Your task to perform on an android device: turn on javascript in the chrome app Image 0: 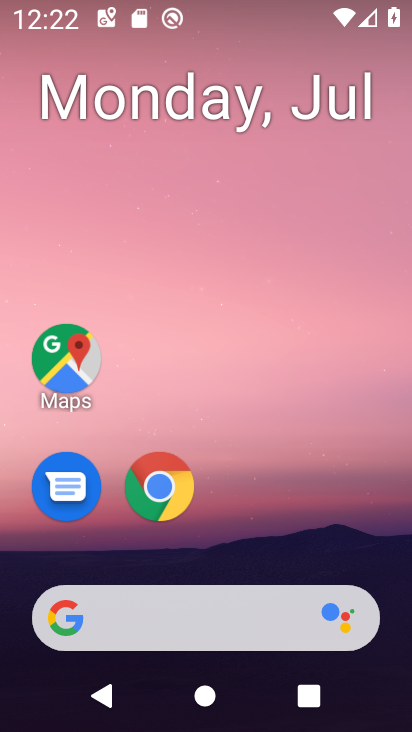
Step 0: press home button
Your task to perform on an android device: turn on javascript in the chrome app Image 1: 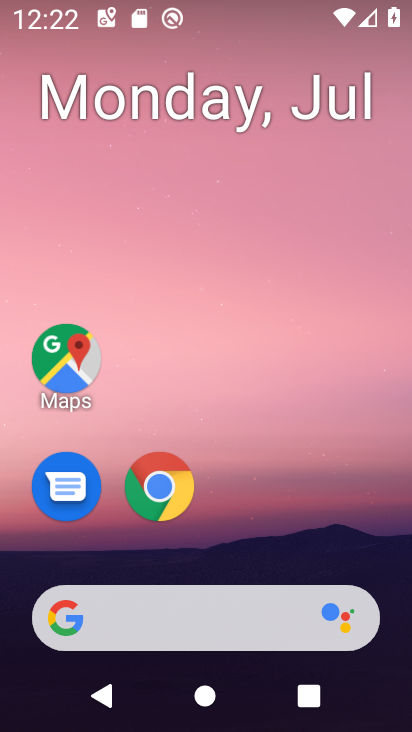
Step 1: drag from (300, 539) to (311, 127)
Your task to perform on an android device: turn on javascript in the chrome app Image 2: 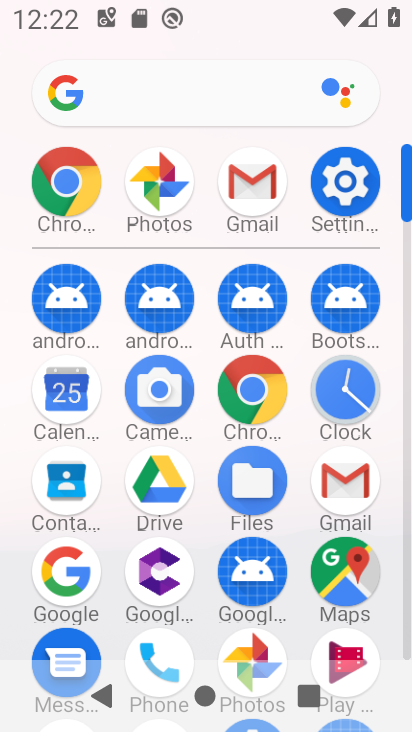
Step 2: click (246, 393)
Your task to perform on an android device: turn on javascript in the chrome app Image 3: 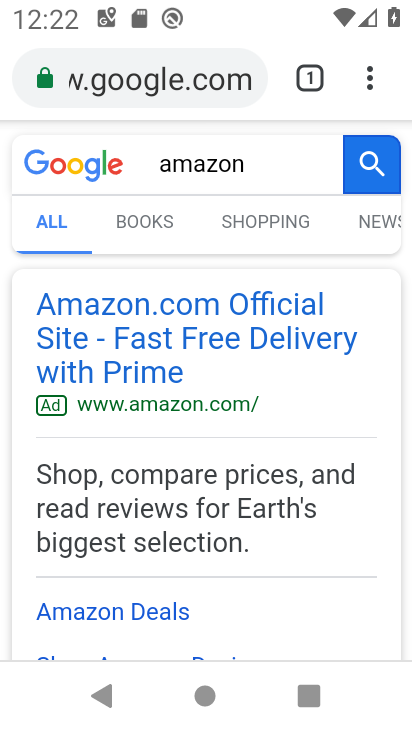
Step 3: click (370, 83)
Your task to perform on an android device: turn on javascript in the chrome app Image 4: 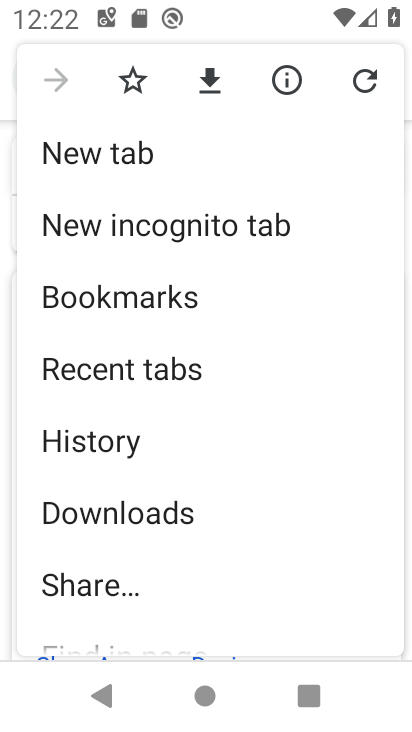
Step 4: drag from (300, 397) to (310, 313)
Your task to perform on an android device: turn on javascript in the chrome app Image 5: 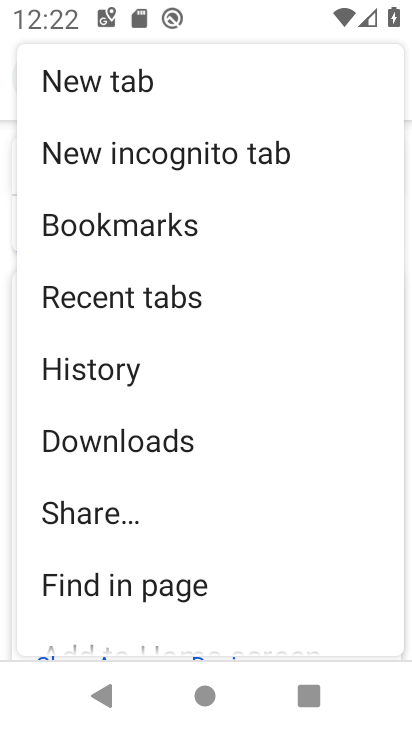
Step 5: drag from (315, 498) to (325, 386)
Your task to perform on an android device: turn on javascript in the chrome app Image 6: 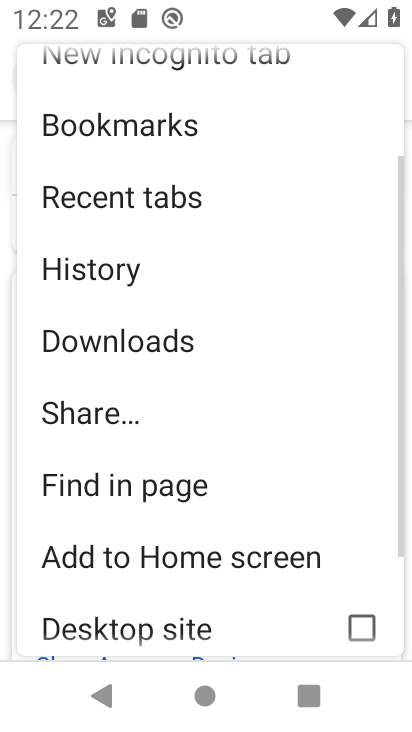
Step 6: drag from (331, 525) to (333, 404)
Your task to perform on an android device: turn on javascript in the chrome app Image 7: 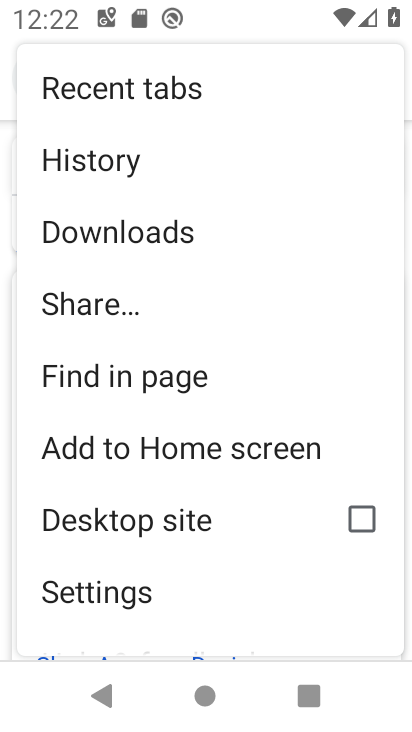
Step 7: drag from (305, 551) to (299, 398)
Your task to perform on an android device: turn on javascript in the chrome app Image 8: 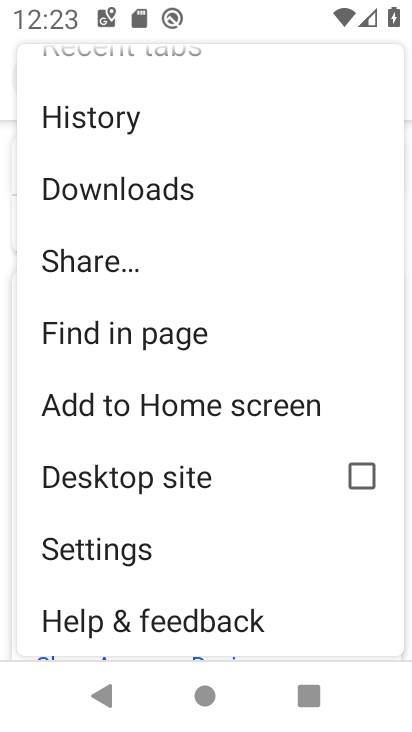
Step 8: click (139, 545)
Your task to perform on an android device: turn on javascript in the chrome app Image 9: 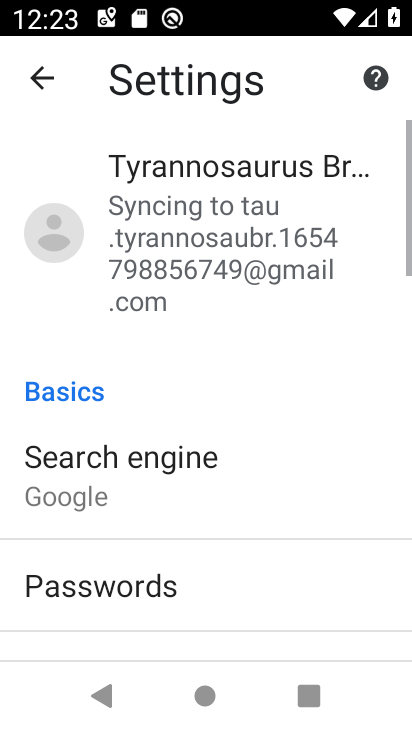
Step 9: drag from (285, 531) to (280, 357)
Your task to perform on an android device: turn on javascript in the chrome app Image 10: 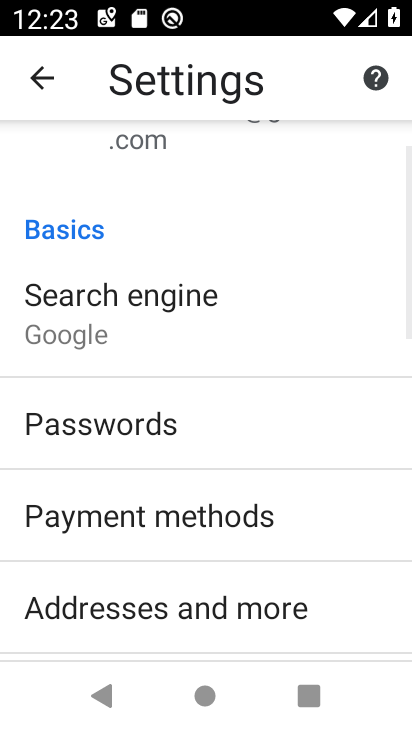
Step 10: drag from (313, 554) to (324, 411)
Your task to perform on an android device: turn on javascript in the chrome app Image 11: 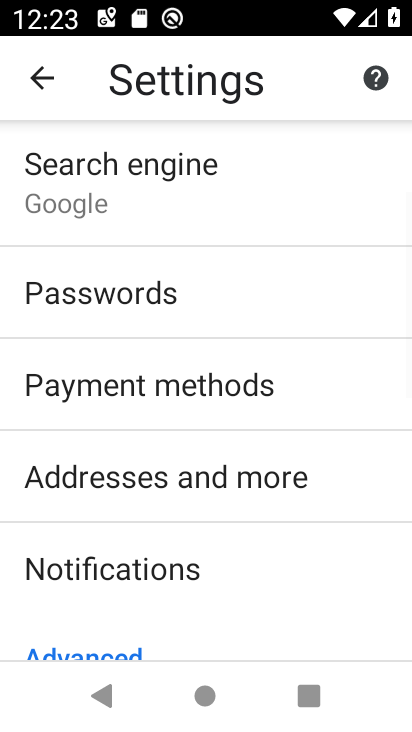
Step 11: drag from (319, 568) to (326, 416)
Your task to perform on an android device: turn on javascript in the chrome app Image 12: 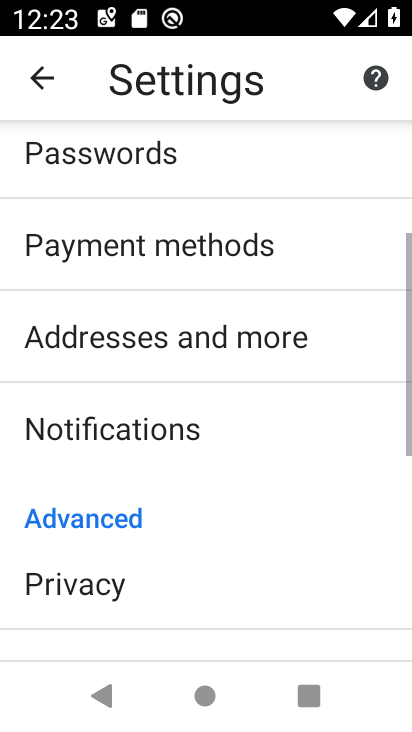
Step 12: drag from (328, 524) to (325, 408)
Your task to perform on an android device: turn on javascript in the chrome app Image 13: 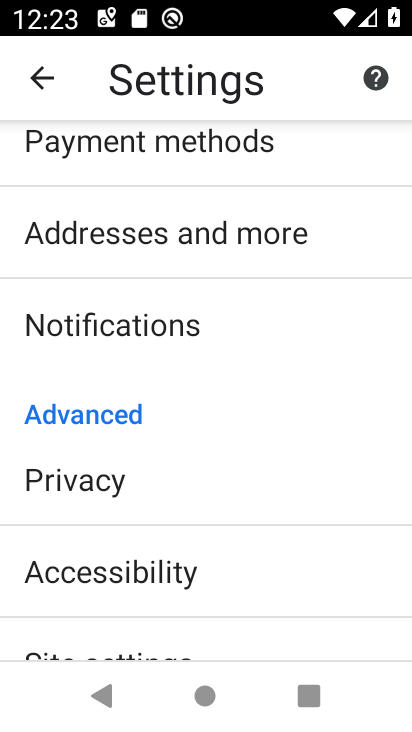
Step 13: drag from (300, 579) to (296, 425)
Your task to perform on an android device: turn on javascript in the chrome app Image 14: 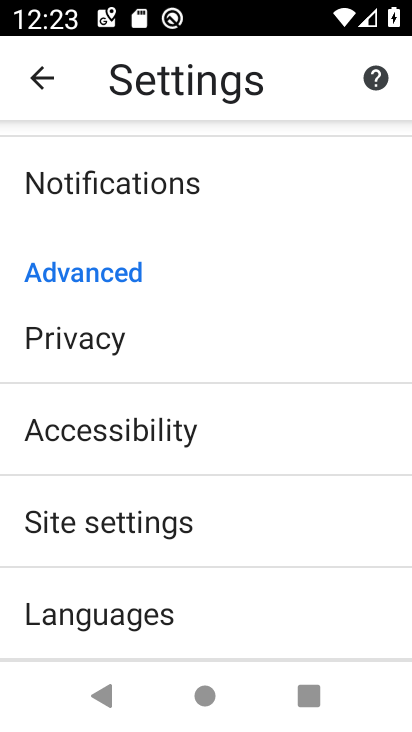
Step 14: drag from (265, 588) to (259, 450)
Your task to perform on an android device: turn on javascript in the chrome app Image 15: 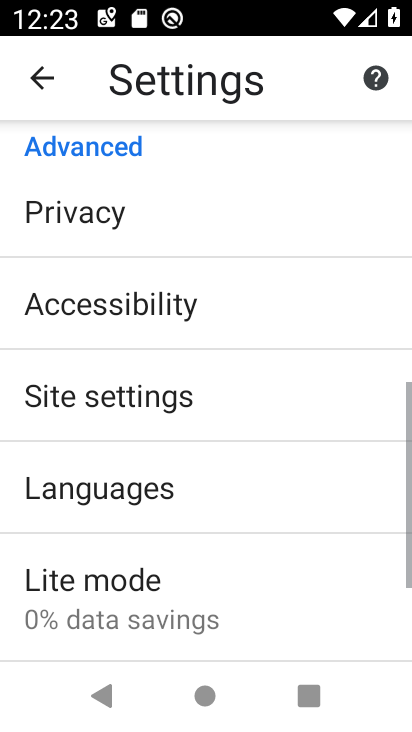
Step 15: drag from (260, 624) to (269, 430)
Your task to perform on an android device: turn on javascript in the chrome app Image 16: 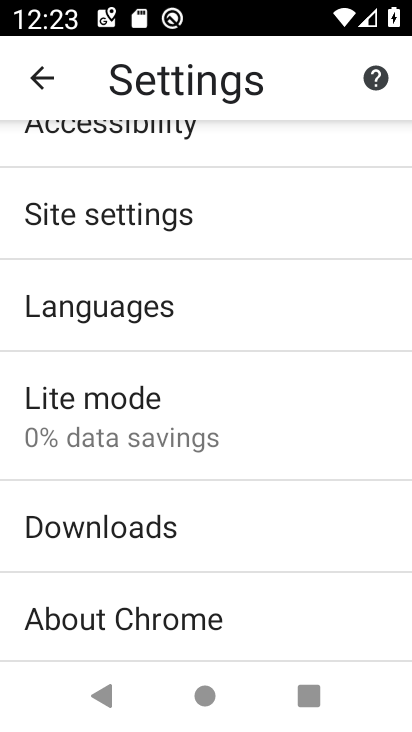
Step 16: click (265, 214)
Your task to perform on an android device: turn on javascript in the chrome app Image 17: 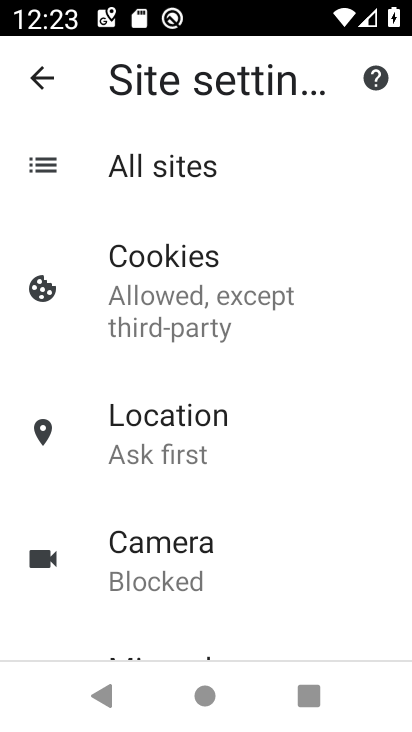
Step 17: drag from (327, 489) to (336, 348)
Your task to perform on an android device: turn on javascript in the chrome app Image 18: 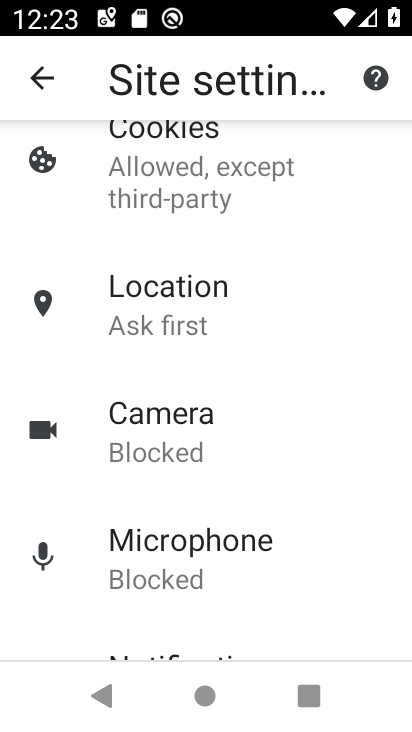
Step 18: drag from (330, 520) to (330, 341)
Your task to perform on an android device: turn on javascript in the chrome app Image 19: 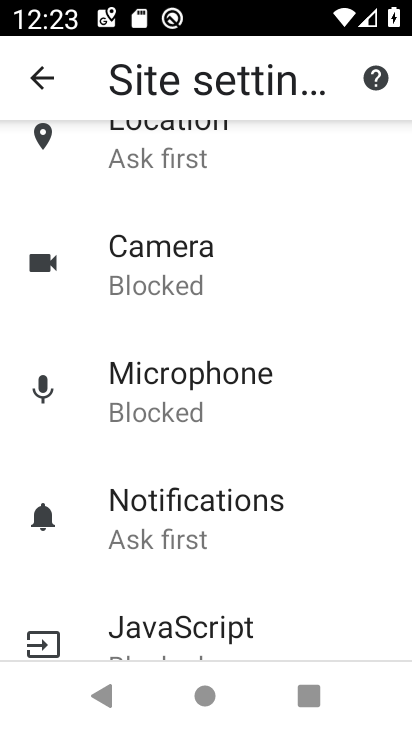
Step 19: drag from (325, 543) to (323, 389)
Your task to perform on an android device: turn on javascript in the chrome app Image 20: 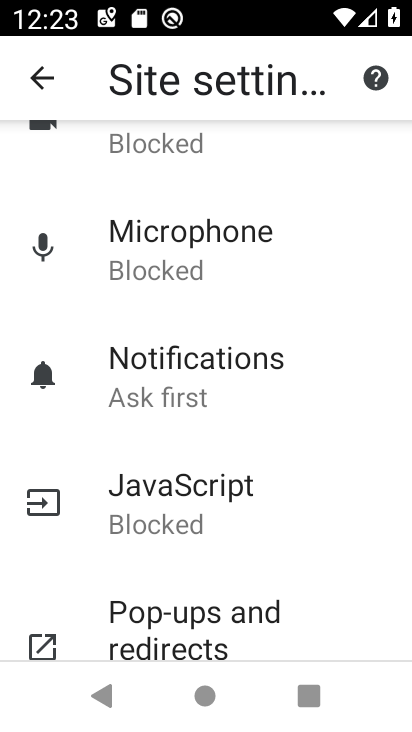
Step 20: drag from (318, 545) to (324, 394)
Your task to perform on an android device: turn on javascript in the chrome app Image 21: 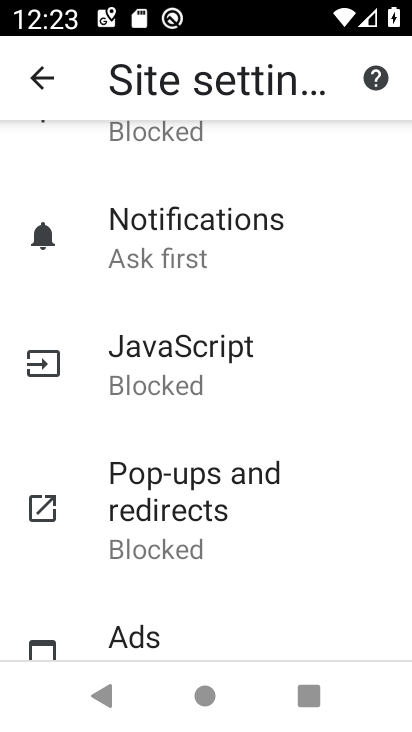
Step 21: drag from (329, 560) to (335, 433)
Your task to perform on an android device: turn on javascript in the chrome app Image 22: 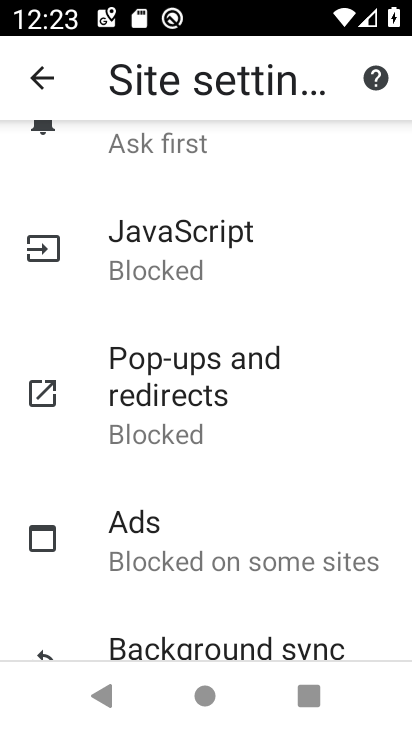
Step 22: click (273, 245)
Your task to perform on an android device: turn on javascript in the chrome app Image 23: 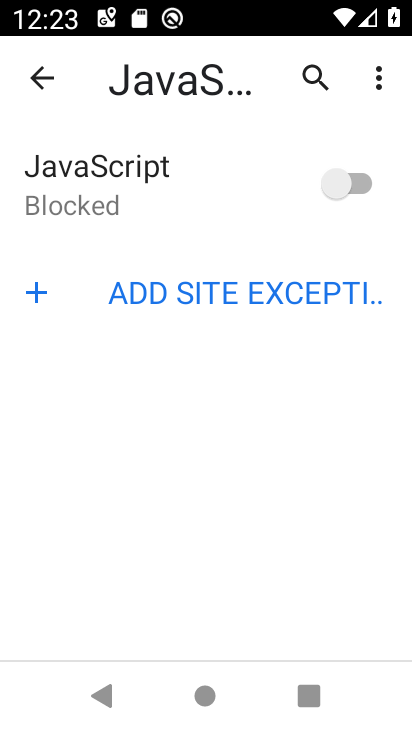
Step 23: click (328, 197)
Your task to perform on an android device: turn on javascript in the chrome app Image 24: 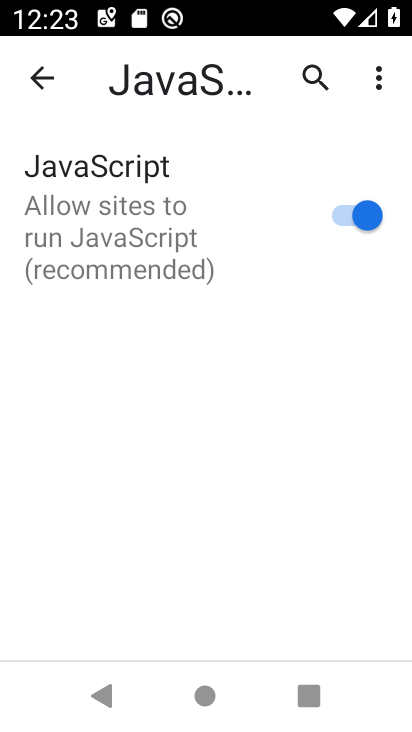
Step 24: task complete